Your task to perform on an android device: Go to privacy settings Image 0: 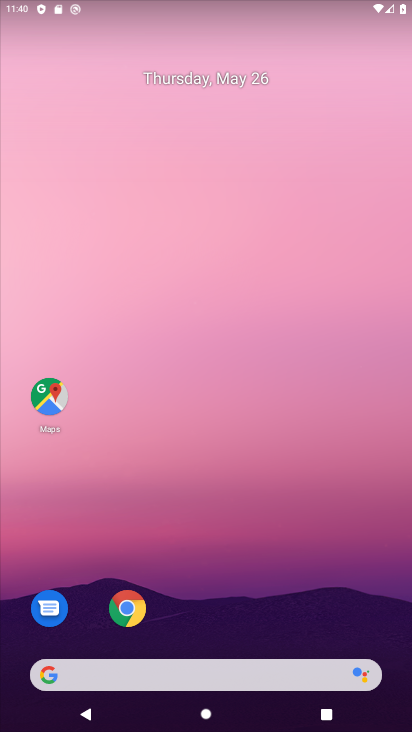
Step 0: drag from (246, 528) to (159, 4)
Your task to perform on an android device: Go to privacy settings Image 1: 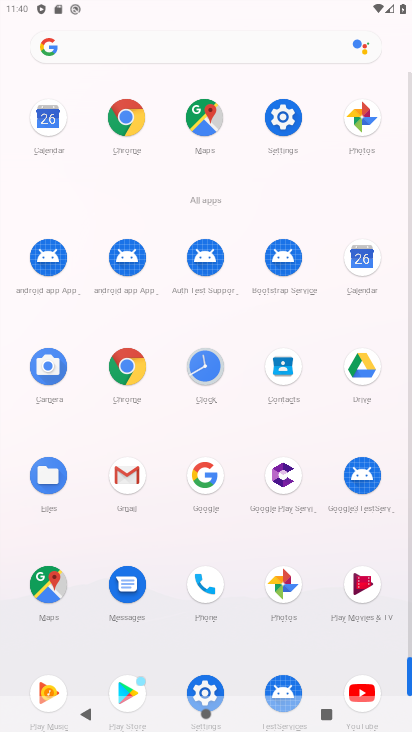
Step 1: drag from (0, 577) to (14, 207)
Your task to perform on an android device: Go to privacy settings Image 2: 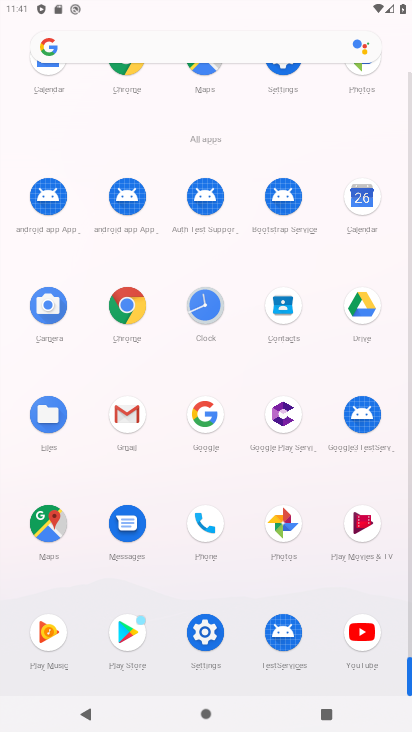
Step 2: click (201, 631)
Your task to perform on an android device: Go to privacy settings Image 3: 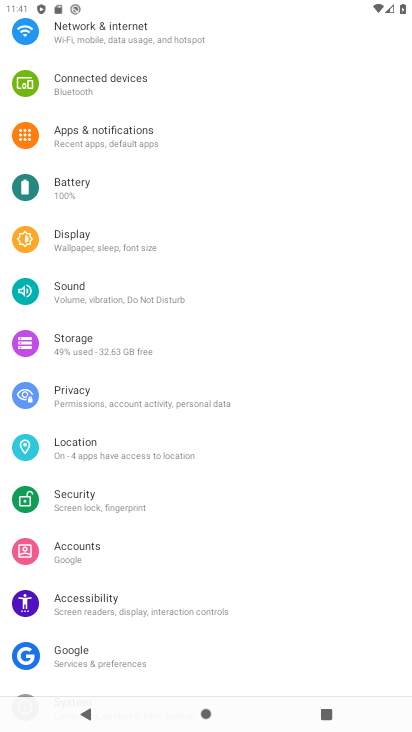
Step 3: press back button
Your task to perform on an android device: Go to privacy settings Image 4: 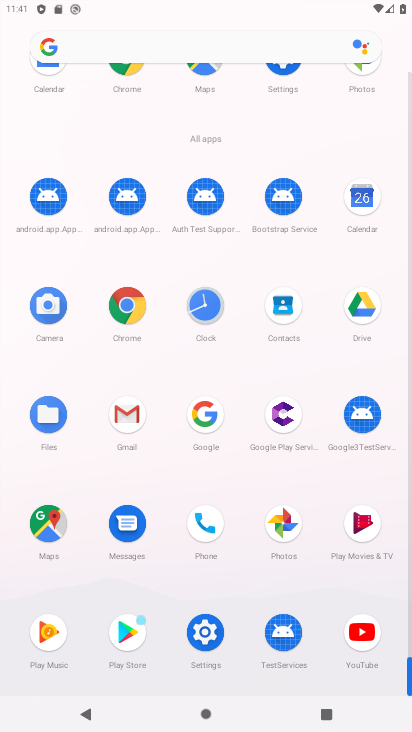
Step 4: press back button
Your task to perform on an android device: Go to privacy settings Image 5: 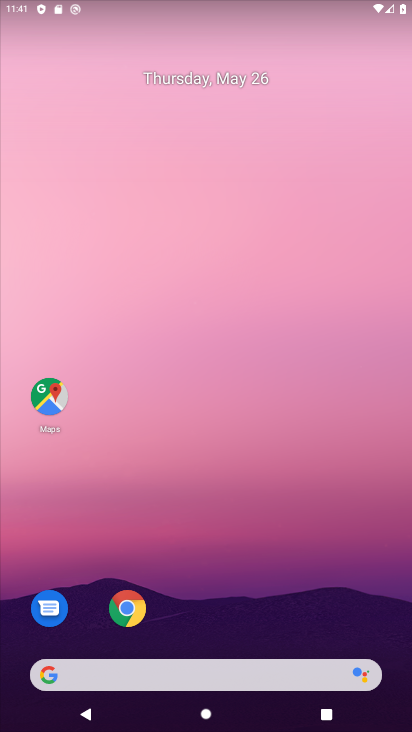
Step 5: drag from (250, 467) to (227, 32)
Your task to perform on an android device: Go to privacy settings Image 6: 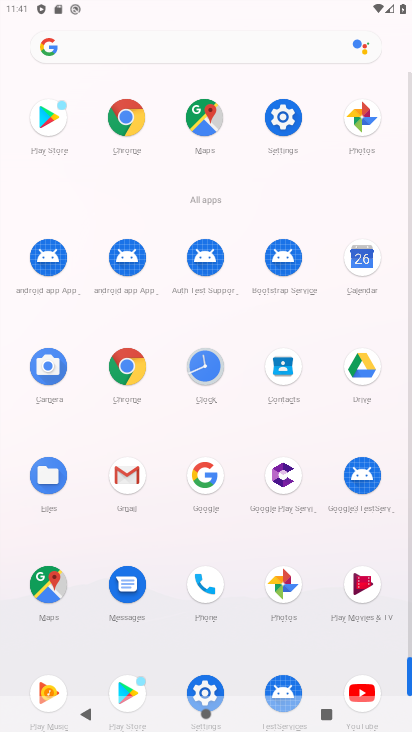
Step 6: drag from (36, 621) to (27, 274)
Your task to perform on an android device: Go to privacy settings Image 7: 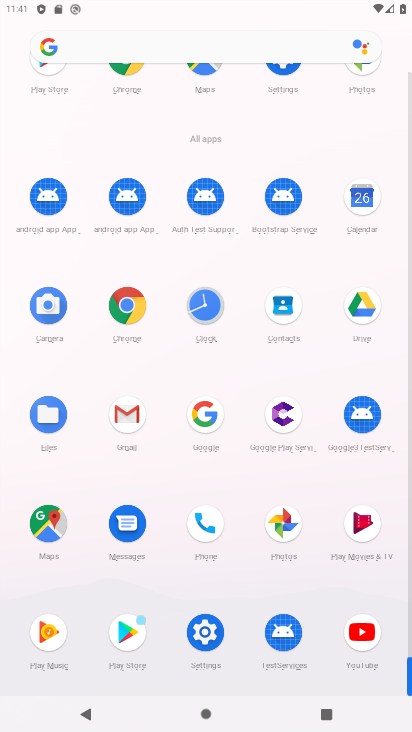
Step 7: click (126, 305)
Your task to perform on an android device: Go to privacy settings Image 8: 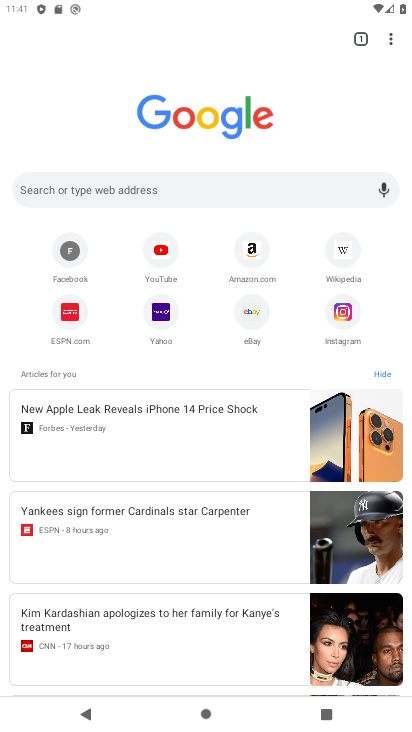
Step 8: drag from (392, 38) to (249, 329)
Your task to perform on an android device: Go to privacy settings Image 9: 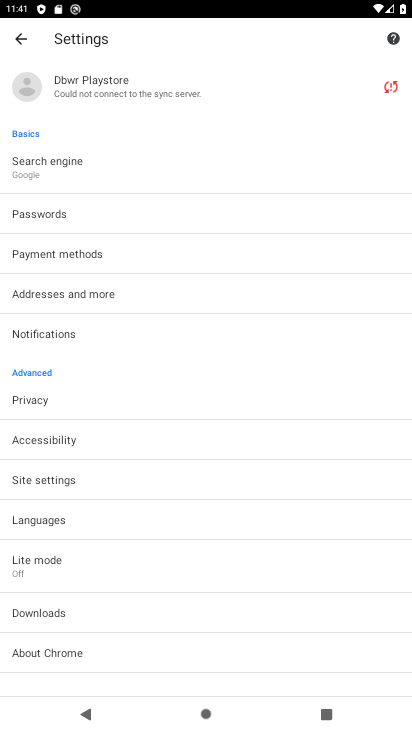
Step 9: click (60, 397)
Your task to perform on an android device: Go to privacy settings Image 10: 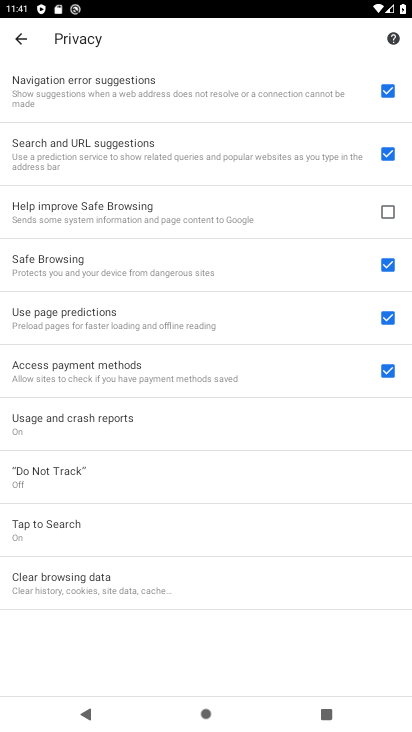
Step 10: task complete